Your task to perform on an android device: stop showing notifications on the lock screen Image 0: 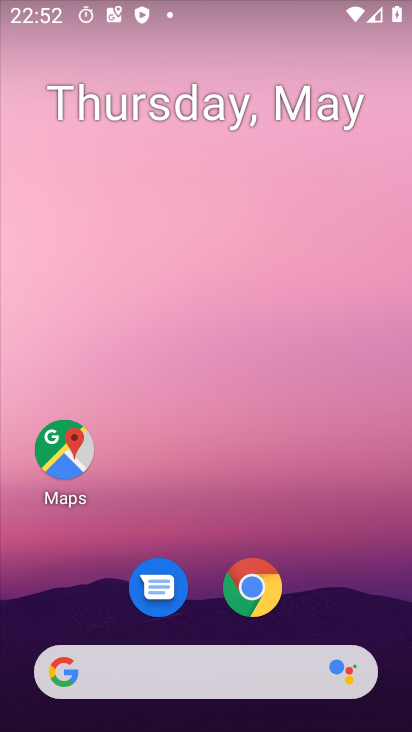
Step 0: drag from (361, 604) to (292, 10)
Your task to perform on an android device: stop showing notifications on the lock screen Image 1: 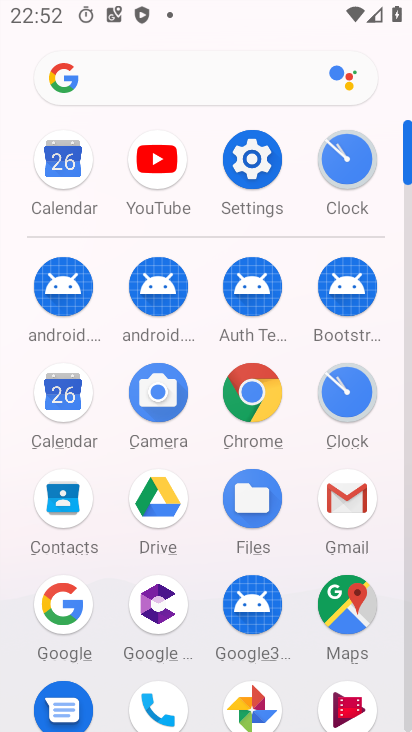
Step 1: click (250, 175)
Your task to perform on an android device: stop showing notifications on the lock screen Image 2: 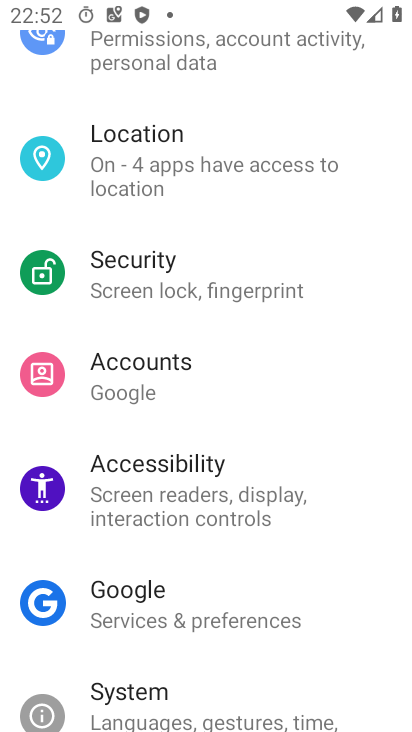
Step 2: drag from (279, 147) to (256, 521)
Your task to perform on an android device: stop showing notifications on the lock screen Image 3: 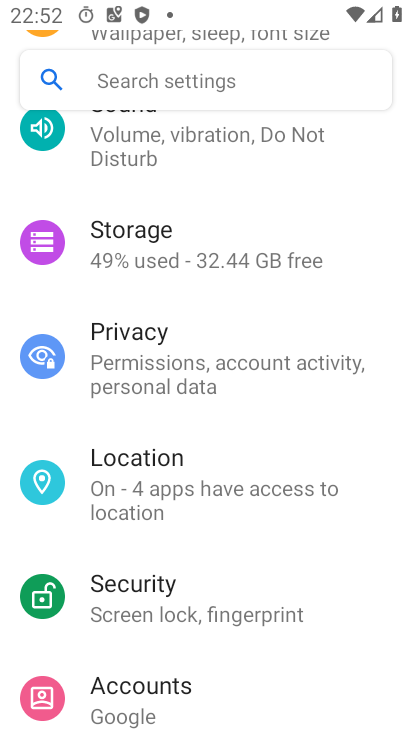
Step 3: drag from (232, 182) to (186, 617)
Your task to perform on an android device: stop showing notifications on the lock screen Image 4: 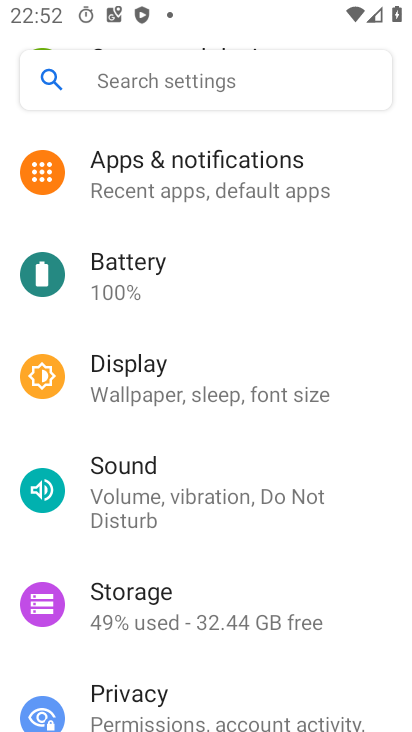
Step 4: click (160, 175)
Your task to perform on an android device: stop showing notifications on the lock screen Image 5: 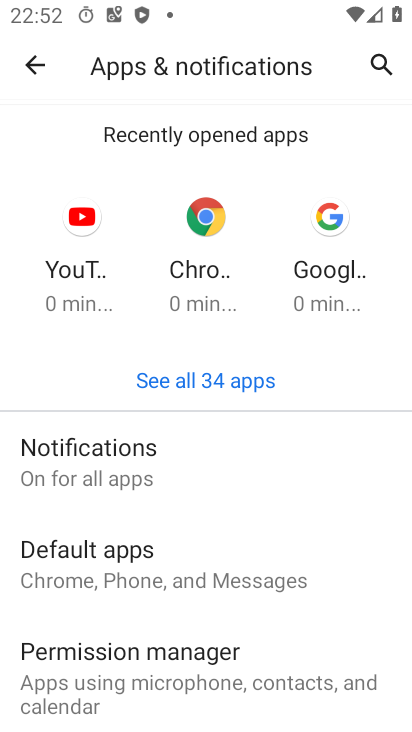
Step 5: click (114, 473)
Your task to perform on an android device: stop showing notifications on the lock screen Image 6: 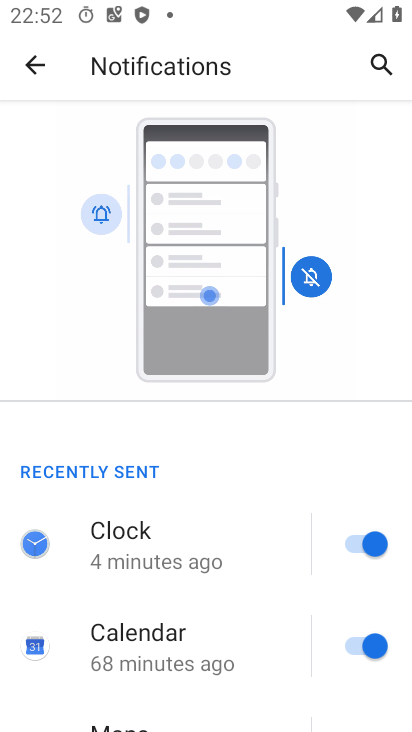
Step 6: drag from (111, 569) to (94, 211)
Your task to perform on an android device: stop showing notifications on the lock screen Image 7: 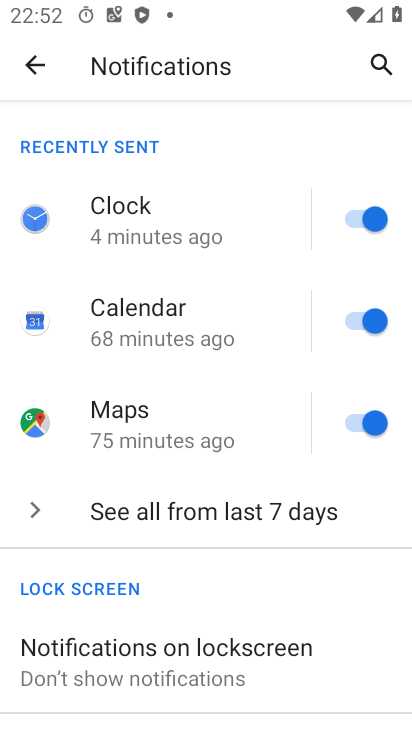
Step 7: drag from (76, 582) to (74, 478)
Your task to perform on an android device: stop showing notifications on the lock screen Image 8: 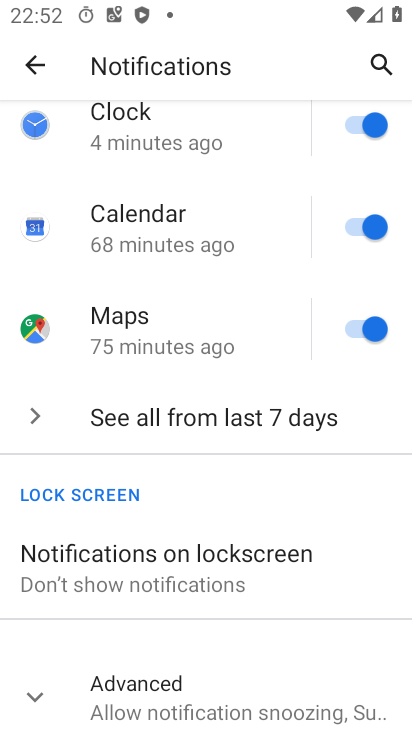
Step 8: click (76, 563)
Your task to perform on an android device: stop showing notifications on the lock screen Image 9: 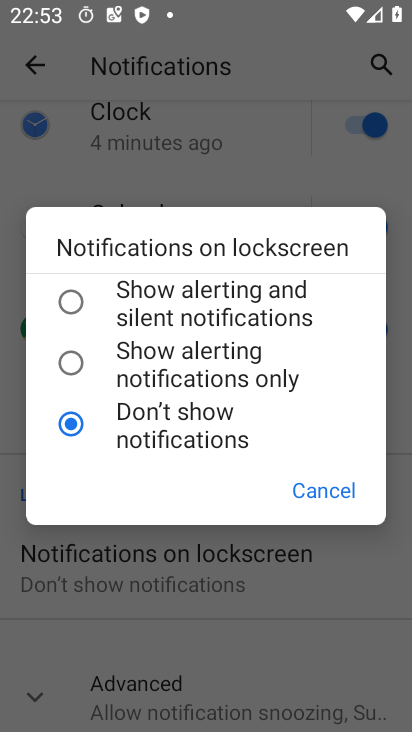
Step 9: press home button
Your task to perform on an android device: stop showing notifications on the lock screen Image 10: 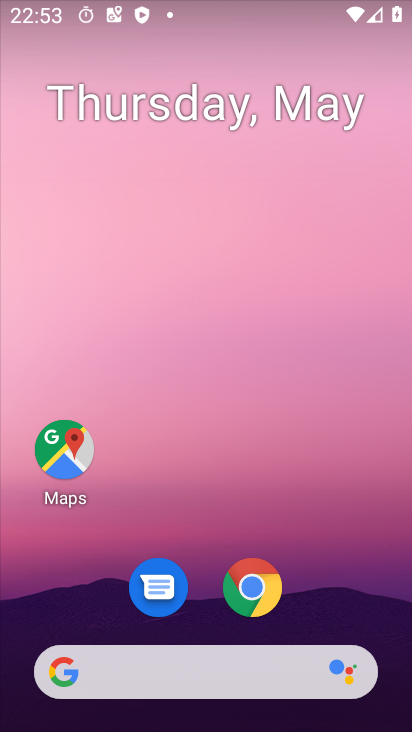
Step 10: drag from (326, 627) to (344, 17)
Your task to perform on an android device: stop showing notifications on the lock screen Image 11: 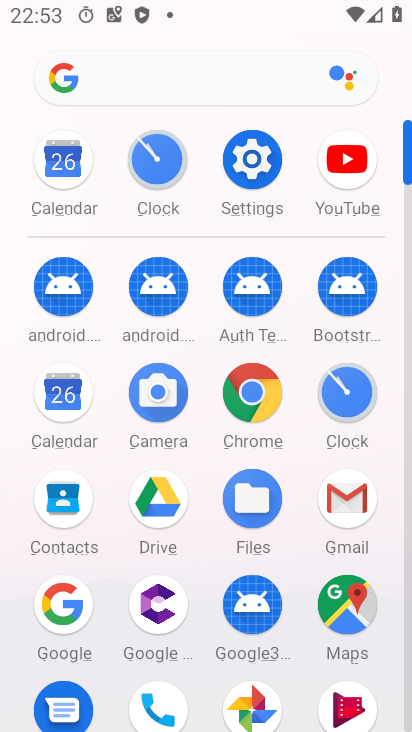
Step 11: click (247, 155)
Your task to perform on an android device: stop showing notifications on the lock screen Image 12: 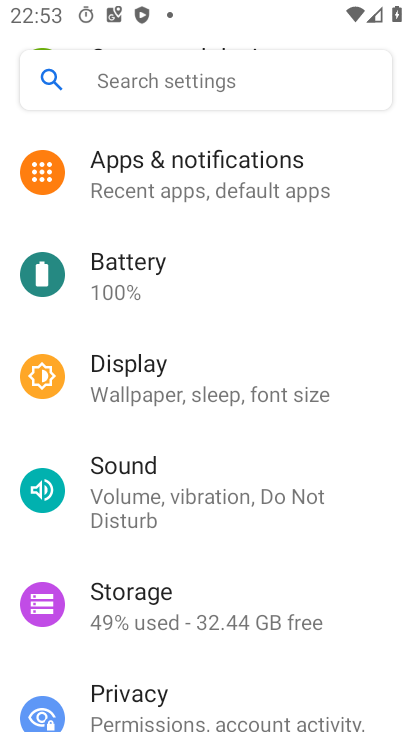
Step 12: click (205, 171)
Your task to perform on an android device: stop showing notifications on the lock screen Image 13: 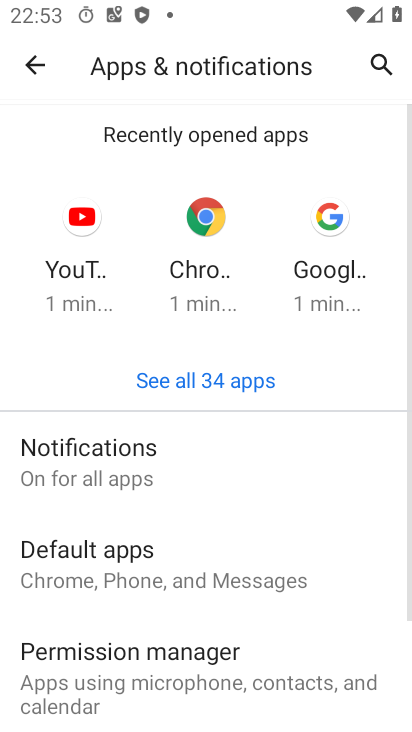
Step 13: click (106, 451)
Your task to perform on an android device: stop showing notifications on the lock screen Image 14: 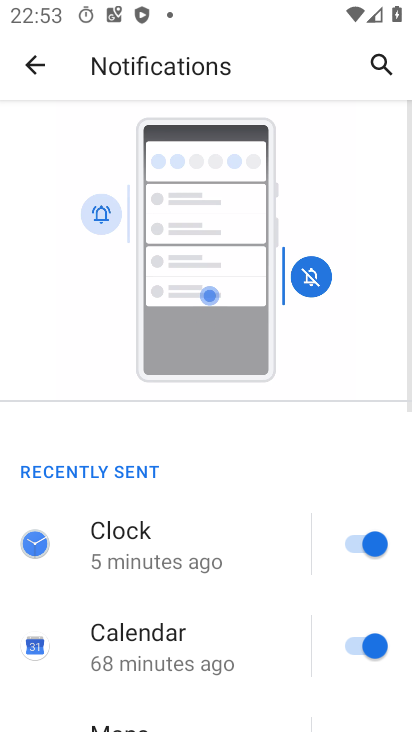
Step 14: drag from (161, 579) to (178, 101)
Your task to perform on an android device: stop showing notifications on the lock screen Image 15: 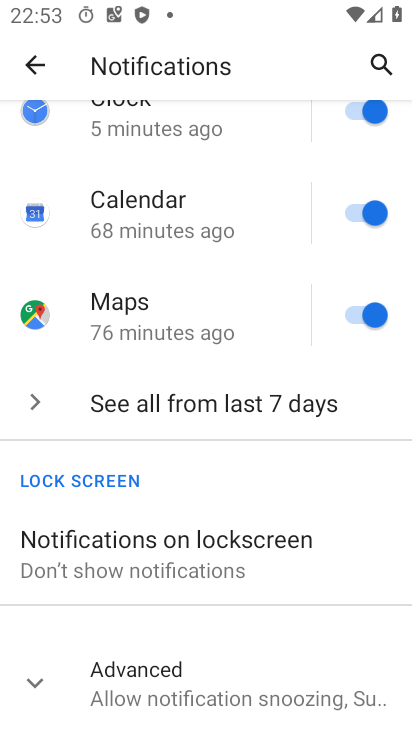
Step 15: click (122, 554)
Your task to perform on an android device: stop showing notifications on the lock screen Image 16: 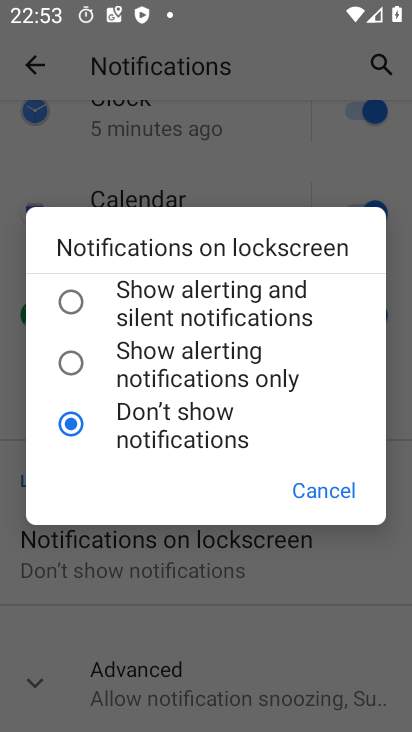
Step 16: task complete